Your task to perform on an android device: What's the weather going to be this weekend? Image 0: 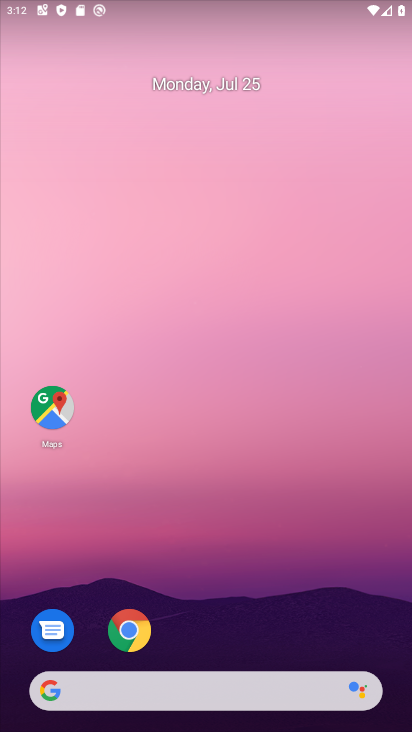
Step 0: drag from (238, 683) to (207, 229)
Your task to perform on an android device: What's the weather going to be this weekend? Image 1: 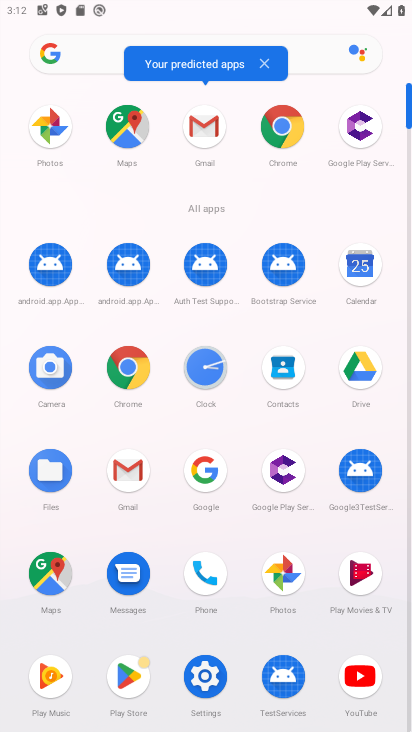
Step 1: click (286, 126)
Your task to perform on an android device: What's the weather going to be this weekend? Image 2: 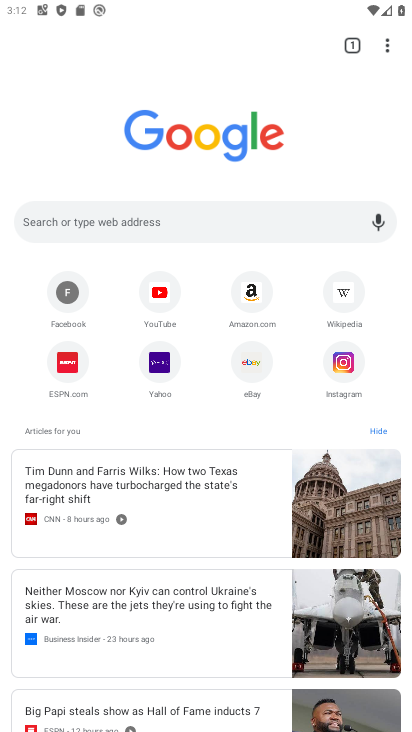
Step 2: click (194, 231)
Your task to perform on an android device: What's the weather going to be this weekend? Image 3: 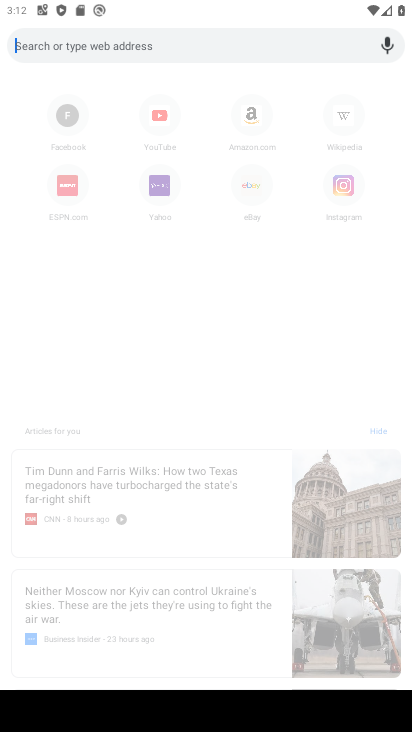
Step 3: type "weather this weekend"
Your task to perform on an android device: What's the weather going to be this weekend? Image 4: 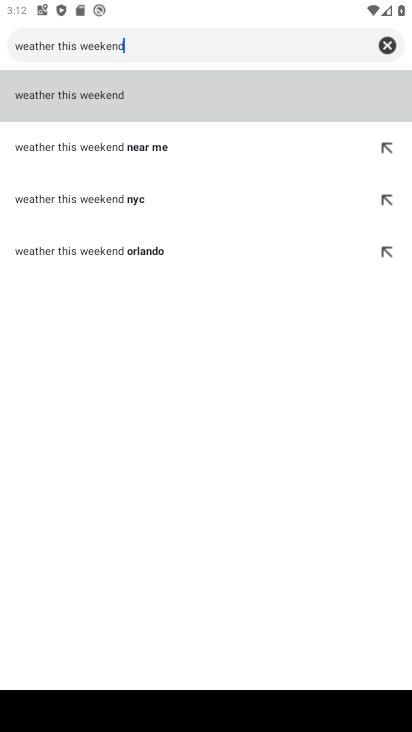
Step 4: click (130, 110)
Your task to perform on an android device: What's the weather going to be this weekend? Image 5: 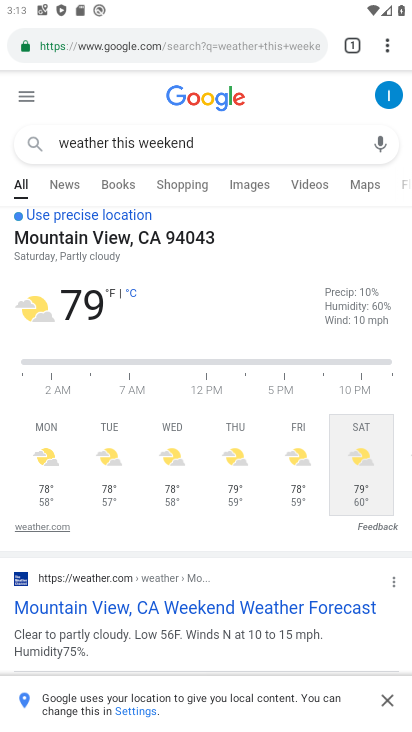
Step 5: task complete